Your task to perform on an android device: change text size in settings app Image 0: 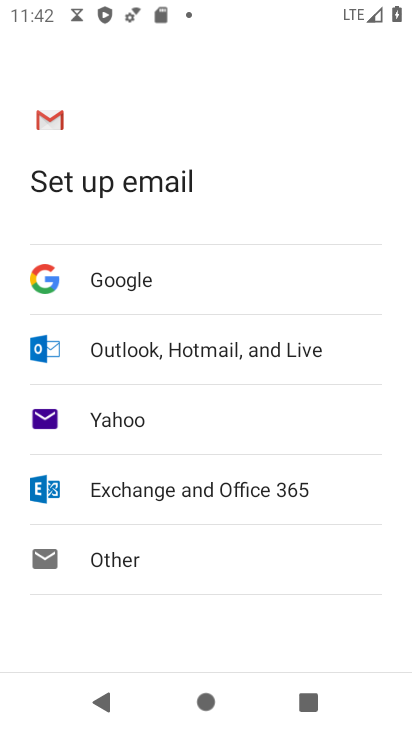
Step 0: press home button
Your task to perform on an android device: change text size in settings app Image 1: 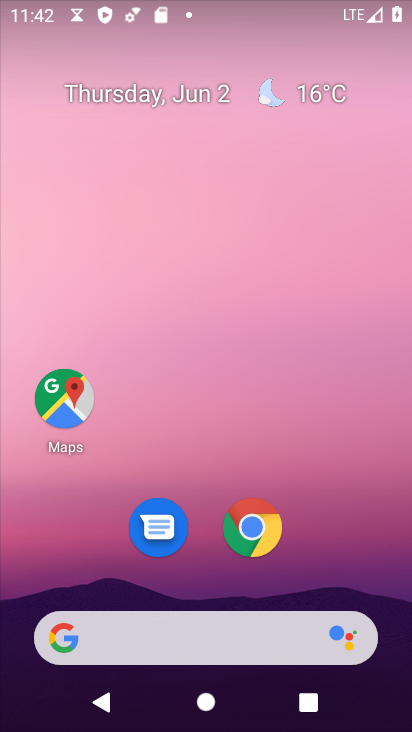
Step 1: drag from (207, 643) to (182, 314)
Your task to perform on an android device: change text size in settings app Image 2: 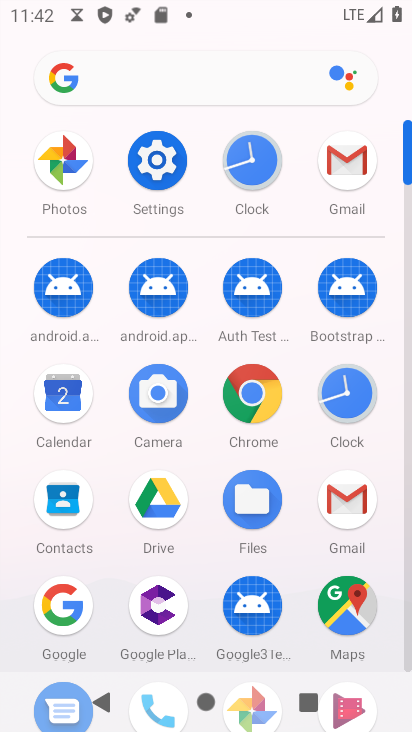
Step 2: click (163, 158)
Your task to perform on an android device: change text size in settings app Image 3: 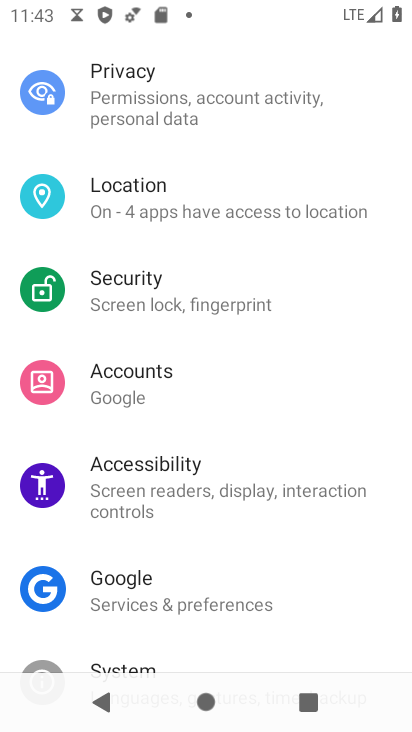
Step 3: drag from (217, 141) to (258, 669)
Your task to perform on an android device: change text size in settings app Image 4: 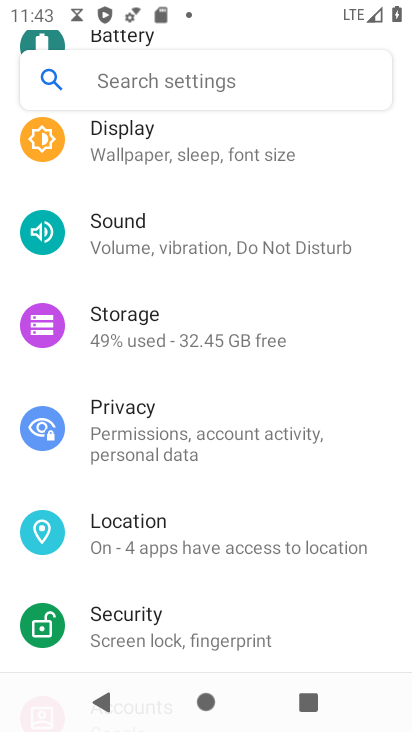
Step 4: click (125, 151)
Your task to perform on an android device: change text size in settings app Image 5: 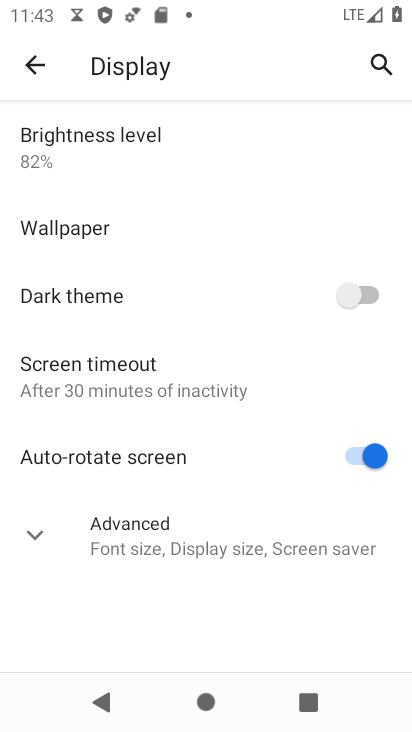
Step 5: click (163, 523)
Your task to perform on an android device: change text size in settings app Image 6: 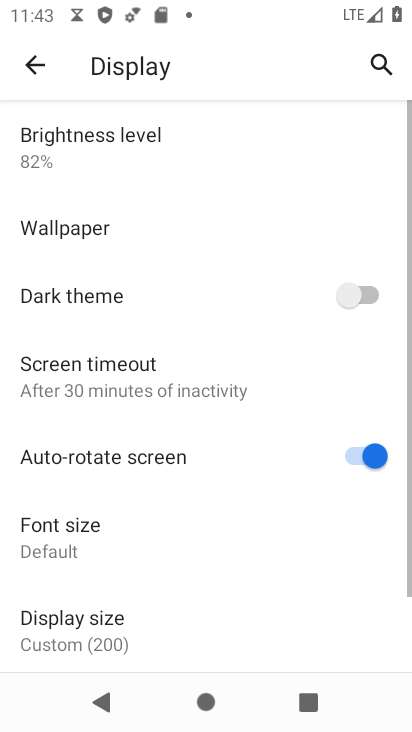
Step 6: click (126, 527)
Your task to perform on an android device: change text size in settings app Image 7: 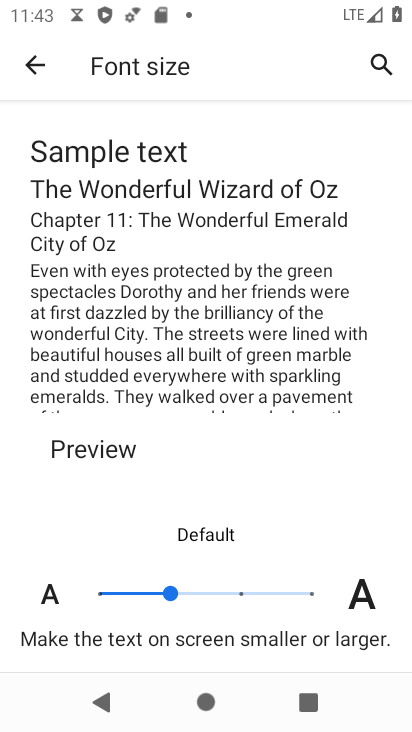
Step 7: click (110, 597)
Your task to perform on an android device: change text size in settings app Image 8: 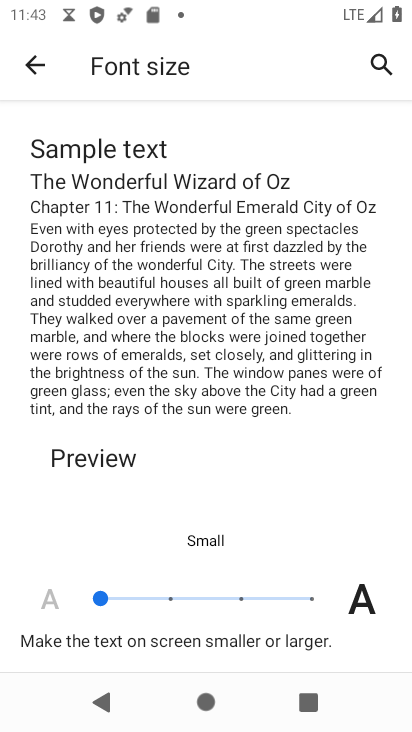
Step 8: task complete